Your task to perform on an android device: What is the recent news? Image 0: 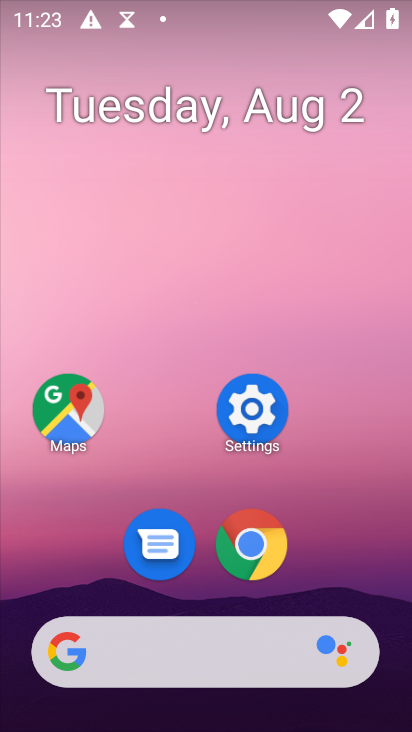
Step 0: click (162, 661)
Your task to perform on an android device: What is the recent news? Image 1: 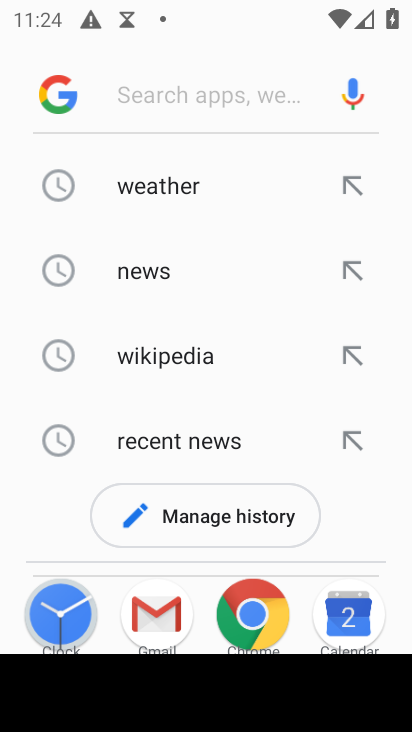
Step 1: click (168, 445)
Your task to perform on an android device: What is the recent news? Image 2: 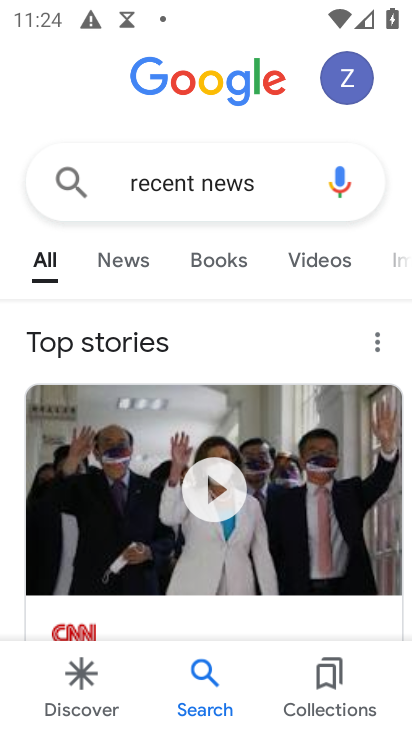
Step 2: click (133, 262)
Your task to perform on an android device: What is the recent news? Image 3: 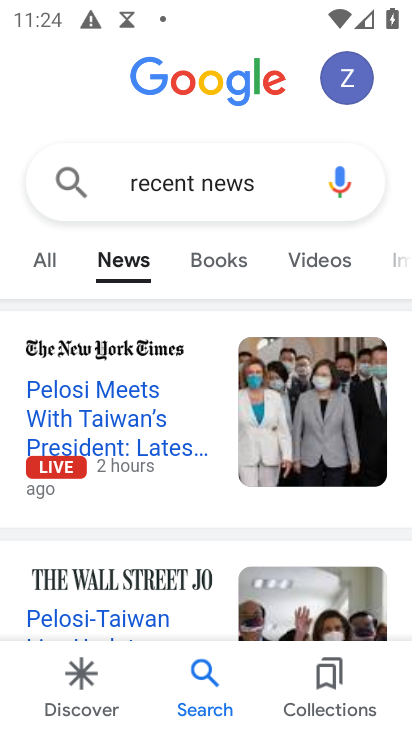
Step 3: task complete